Your task to perform on an android device: check storage Image 0: 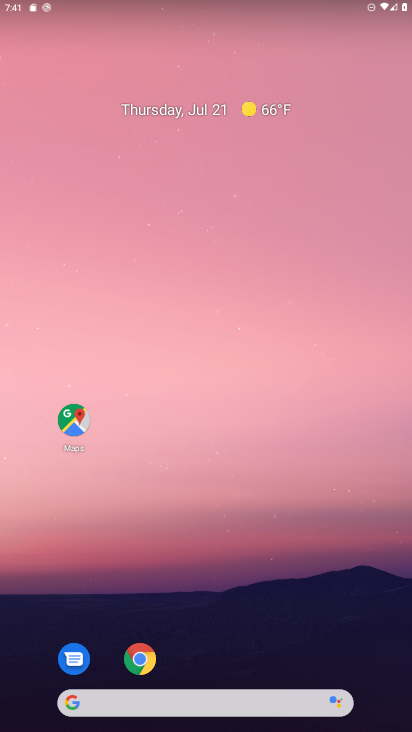
Step 0: drag from (191, 649) to (209, 85)
Your task to perform on an android device: check storage Image 1: 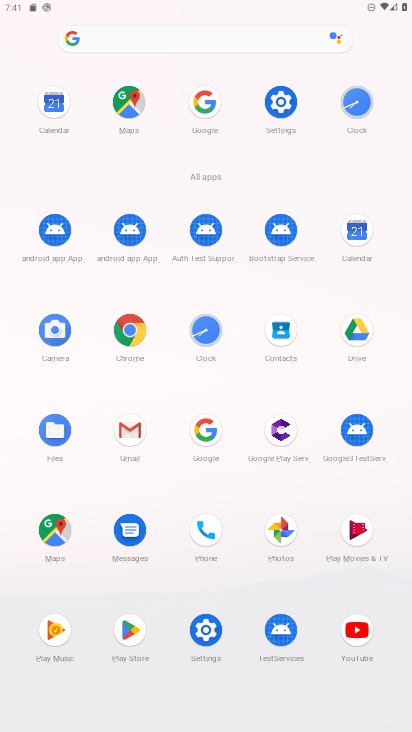
Step 1: click (282, 106)
Your task to perform on an android device: check storage Image 2: 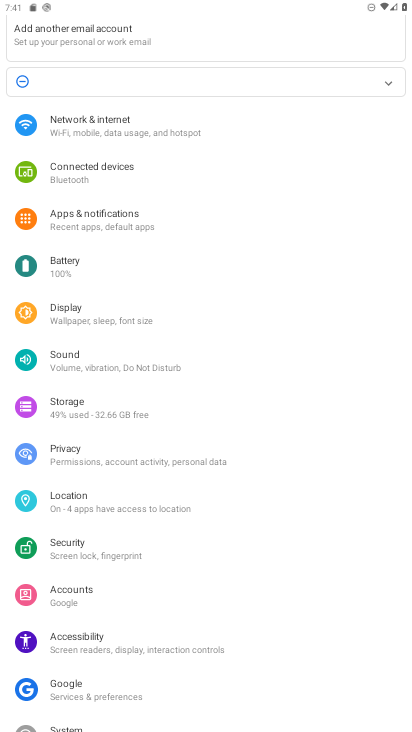
Step 2: click (90, 401)
Your task to perform on an android device: check storage Image 3: 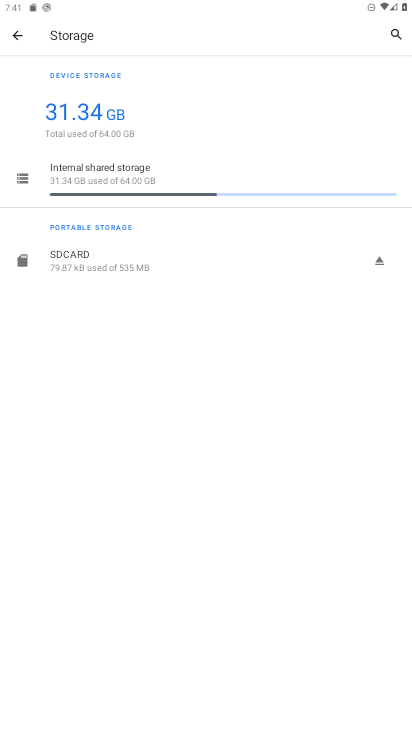
Step 3: task complete